Your task to perform on an android device: Open privacy settings Image 0: 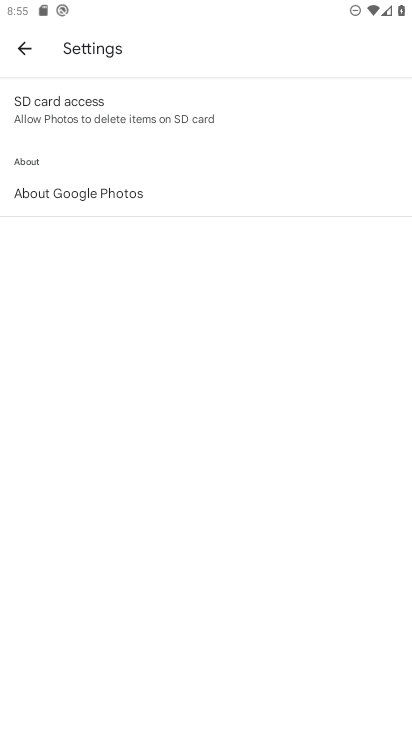
Step 0: press home button
Your task to perform on an android device: Open privacy settings Image 1: 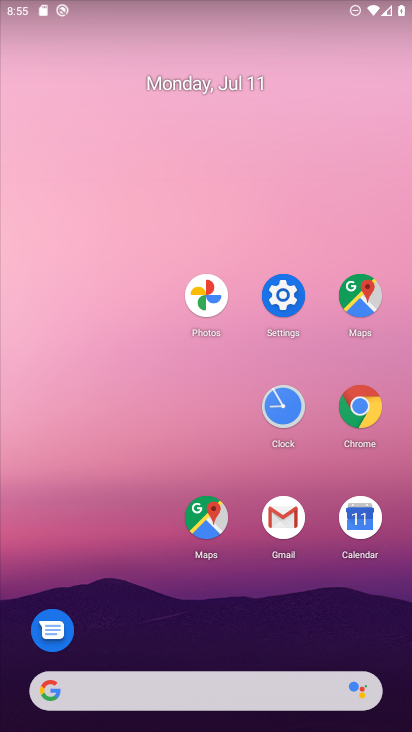
Step 1: click (289, 294)
Your task to perform on an android device: Open privacy settings Image 2: 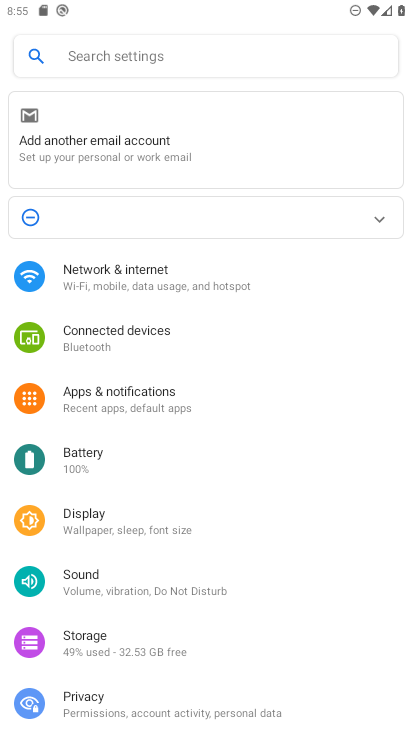
Step 2: click (127, 701)
Your task to perform on an android device: Open privacy settings Image 3: 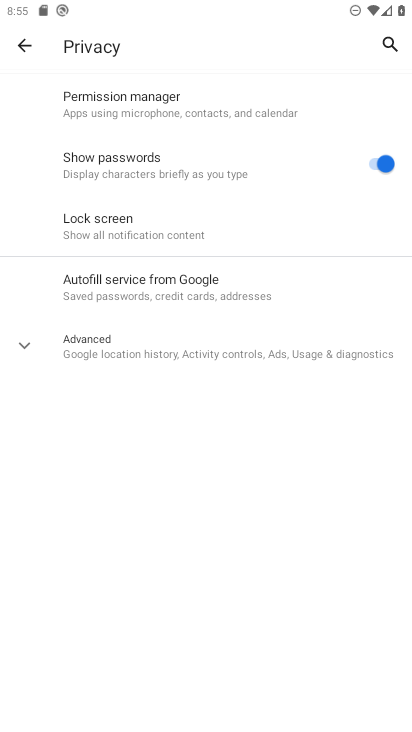
Step 3: task complete